Your task to perform on an android device: Go to Google Image 0: 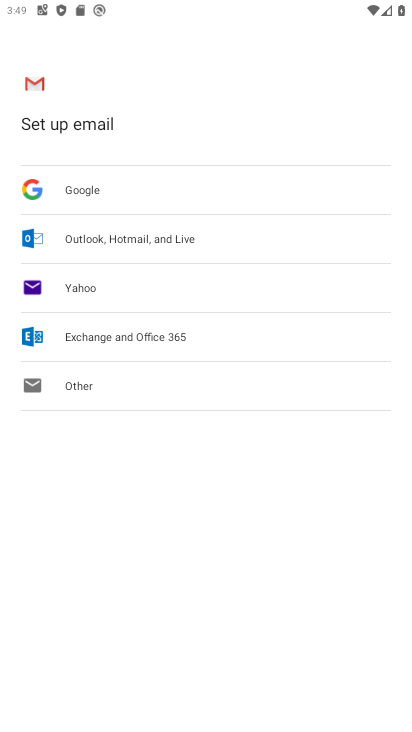
Step 0: press back button
Your task to perform on an android device: Go to Google Image 1: 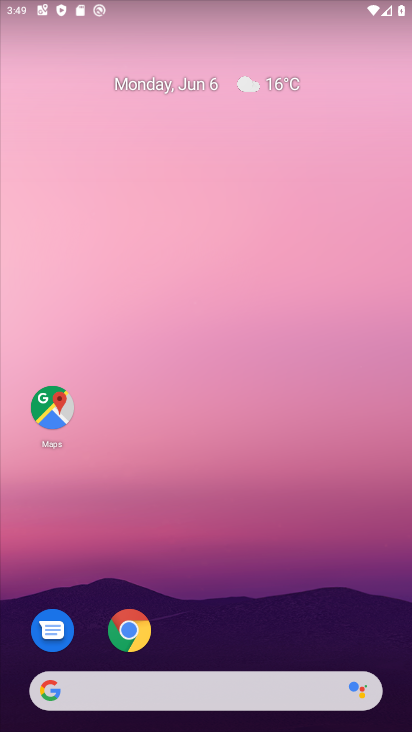
Step 1: drag from (228, 614) to (264, 136)
Your task to perform on an android device: Go to Google Image 2: 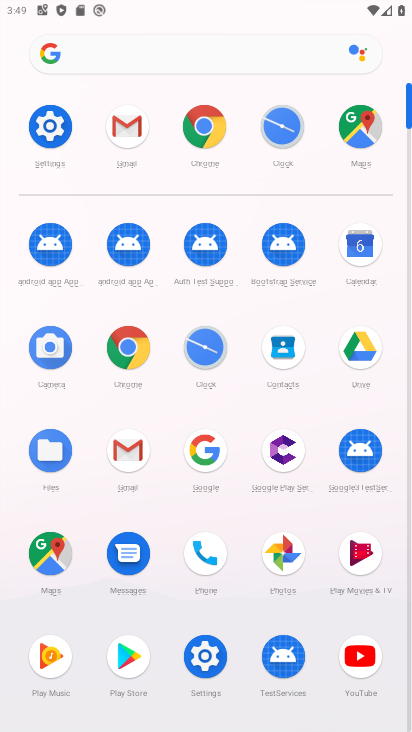
Step 2: click (207, 461)
Your task to perform on an android device: Go to Google Image 3: 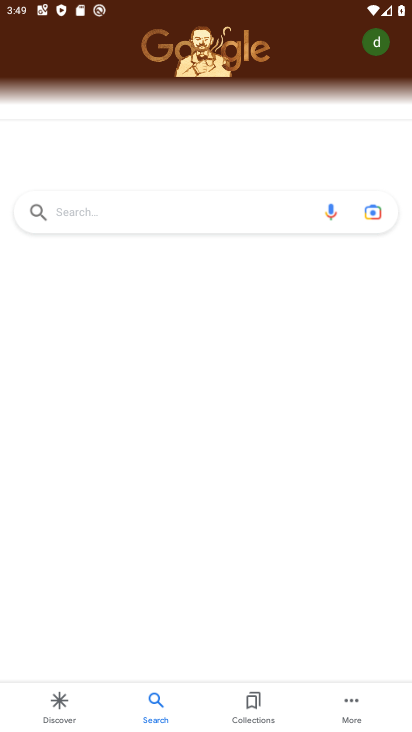
Step 3: task complete